Your task to perform on an android device: toggle wifi Image 0: 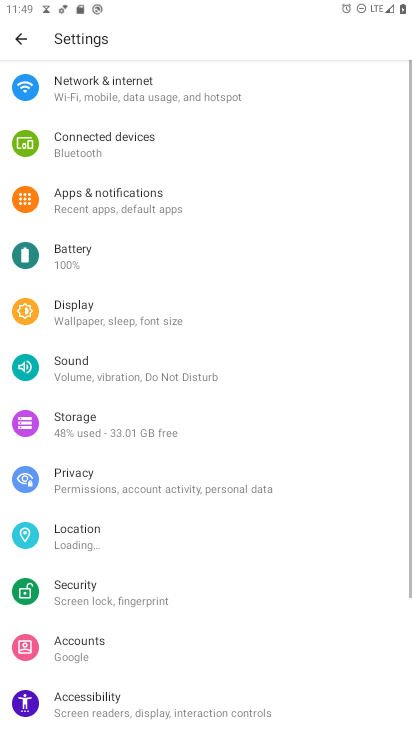
Step 0: press back button
Your task to perform on an android device: toggle wifi Image 1: 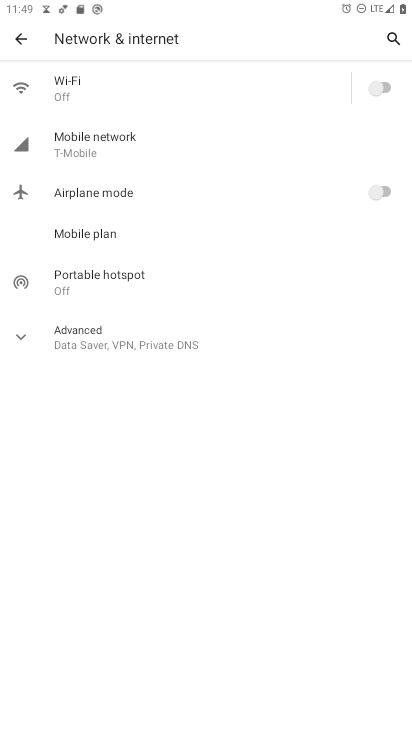
Step 1: press back button
Your task to perform on an android device: toggle wifi Image 2: 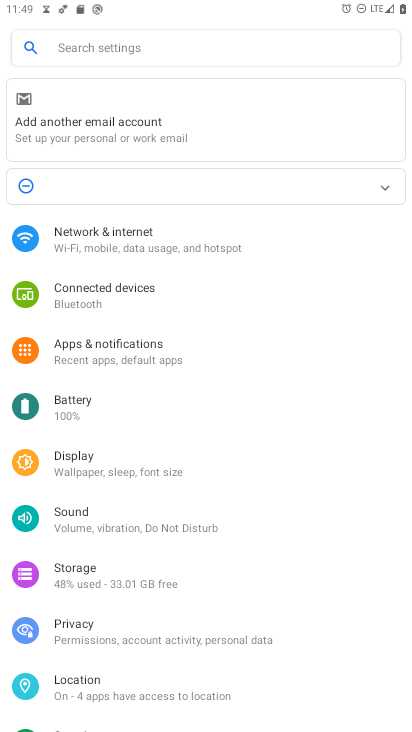
Step 2: drag from (108, 9) to (185, 523)
Your task to perform on an android device: toggle wifi Image 3: 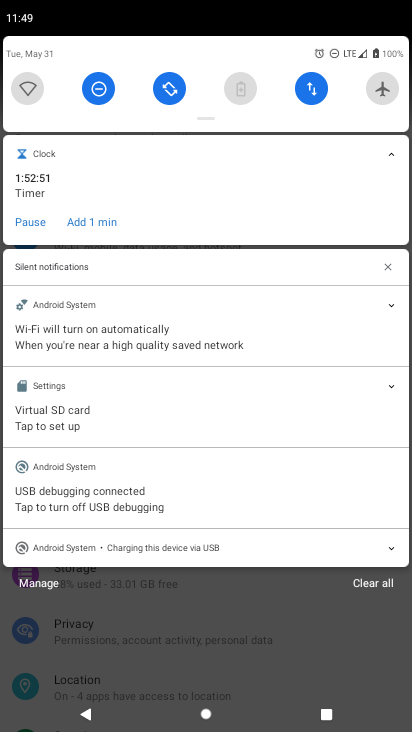
Step 3: click (22, 86)
Your task to perform on an android device: toggle wifi Image 4: 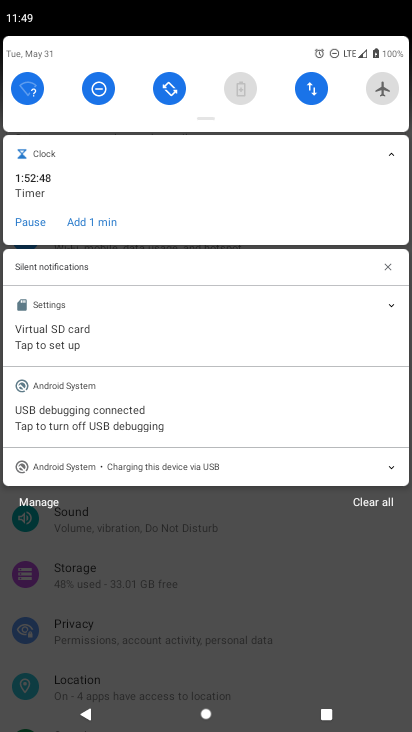
Step 4: task complete